Your task to perform on an android device: see creations saved in the google photos Image 0: 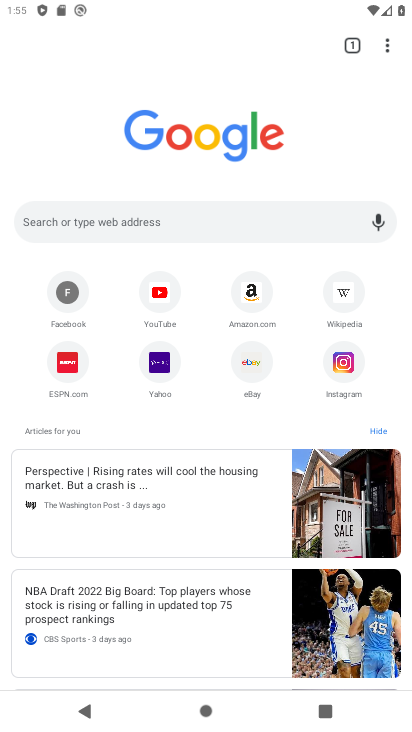
Step 0: press home button
Your task to perform on an android device: see creations saved in the google photos Image 1: 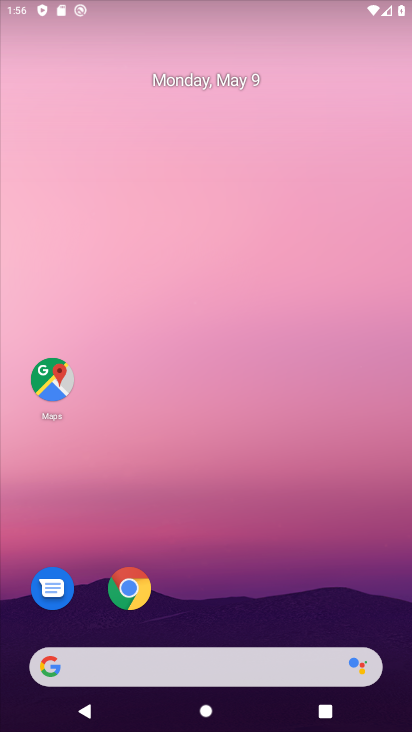
Step 1: drag from (350, 628) to (266, 0)
Your task to perform on an android device: see creations saved in the google photos Image 2: 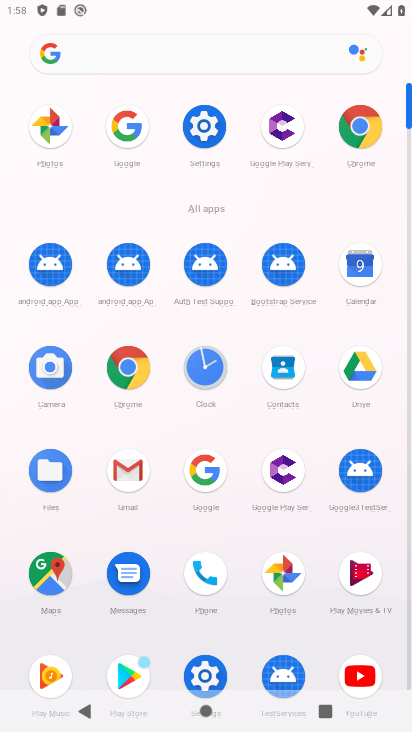
Step 2: click (284, 557)
Your task to perform on an android device: see creations saved in the google photos Image 3: 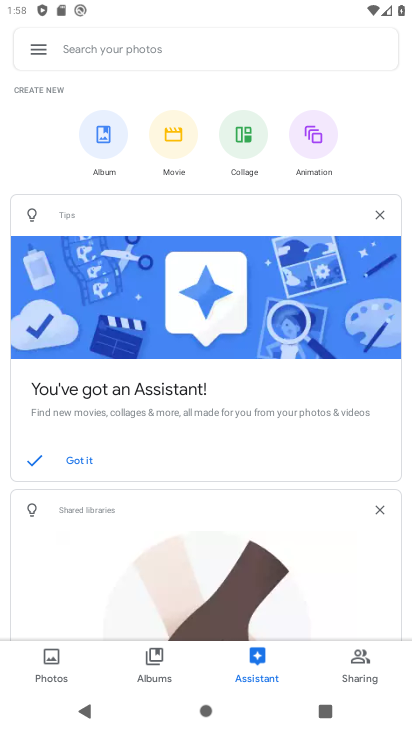
Step 3: click (143, 51)
Your task to perform on an android device: see creations saved in the google photos Image 4: 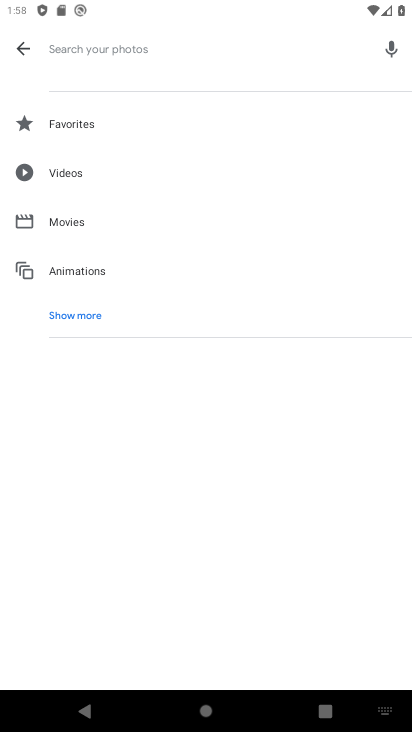
Step 4: click (62, 307)
Your task to perform on an android device: see creations saved in the google photos Image 5: 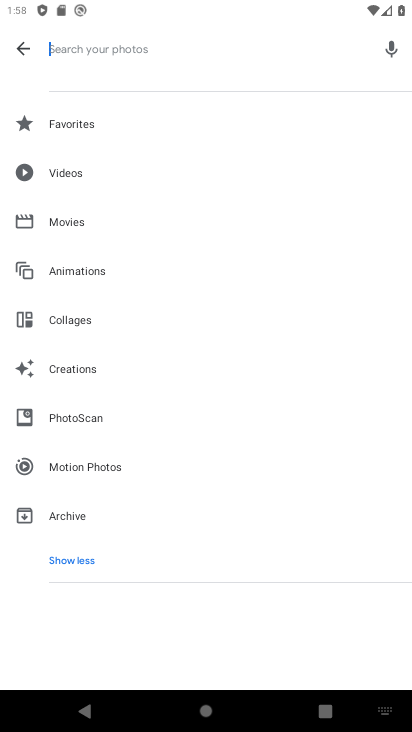
Step 5: click (46, 358)
Your task to perform on an android device: see creations saved in the google photos Image 6: 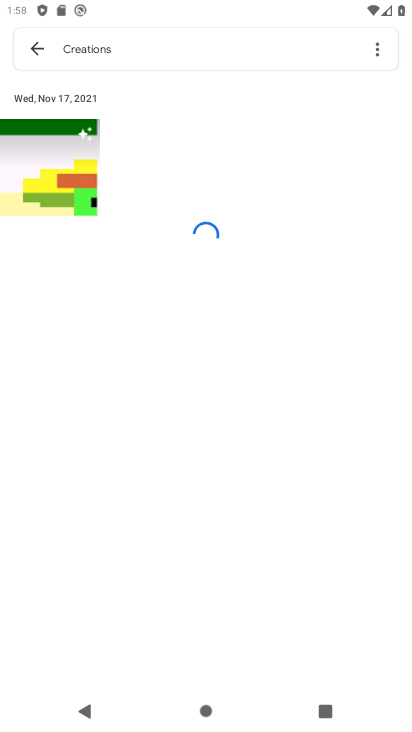
Step 6: task complete